Your task to perform on an android device: open chrome privacy settings Image 0: 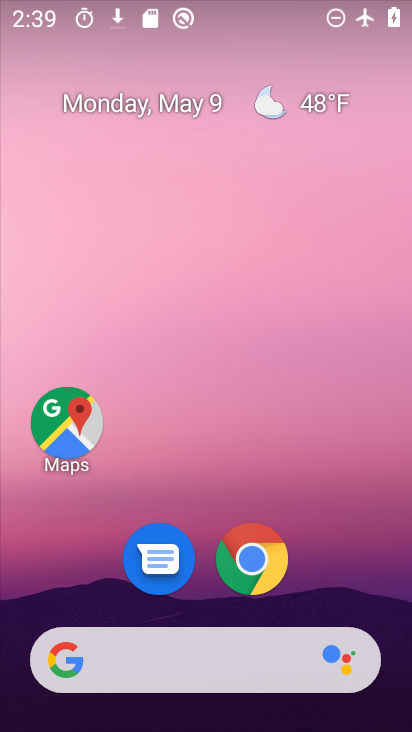
Step 0: drag from (196, 609) to (306, 139)
Your task to perform on an android device: open chrome privacy settings Image 1: 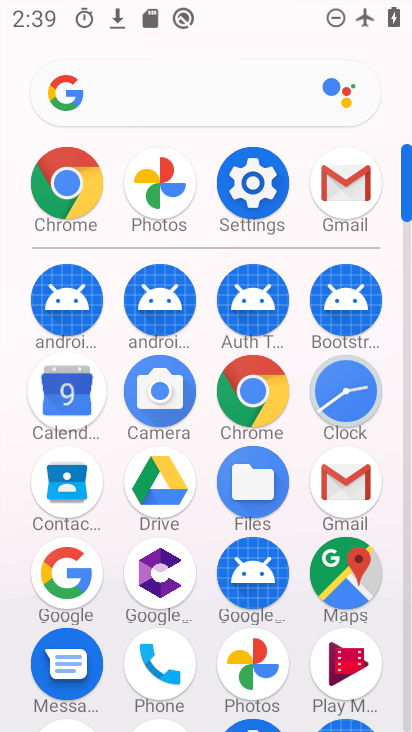
Step 1: click (258, 189)
Your task to perform on an android device: open chrome privacy settings Image 2: 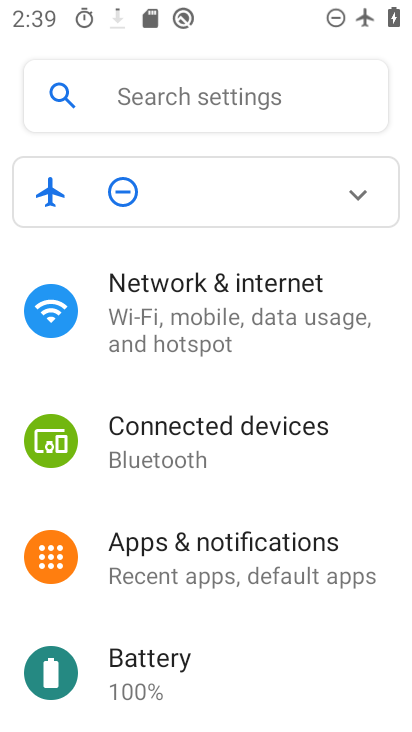
Step 2: drag from (212, 569) to (368, 70)
Your task to perform on an android device: open chrome privacy settings Image 3: 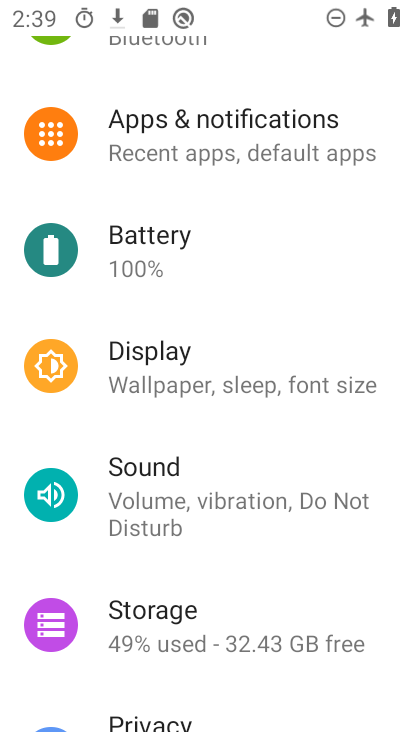
Step 3: drag from (253, 634) to (306, 185)
Your task to perform on an android device: open chrome privacy settings Image 4: 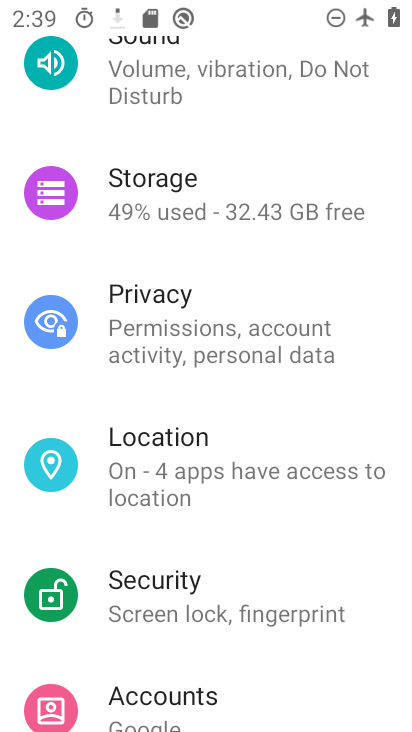
Step 4: drag from (184, 605) to (239, 266)
Your task to perform on an android device: open chrome privacy settings Image 5: 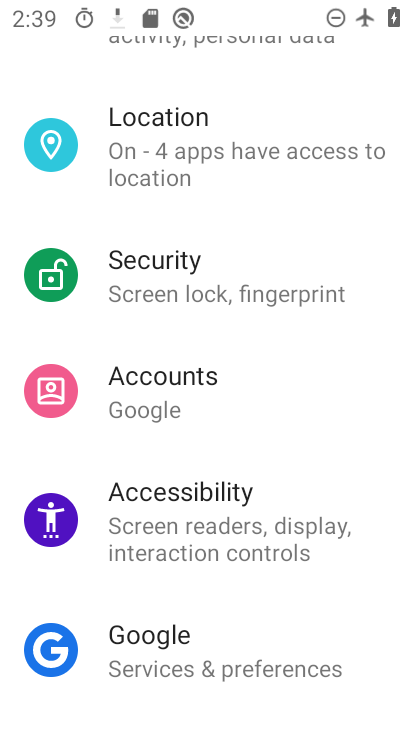
Step 5: press back button
Your task to perform on an android device: open chrome privacy settings Image 6: 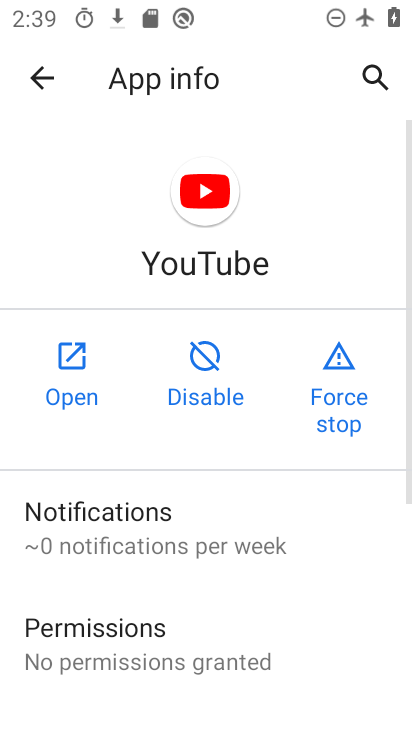
Step 6: press back button
Your task to perform on an android device: open chrome privacy settings Image 7: 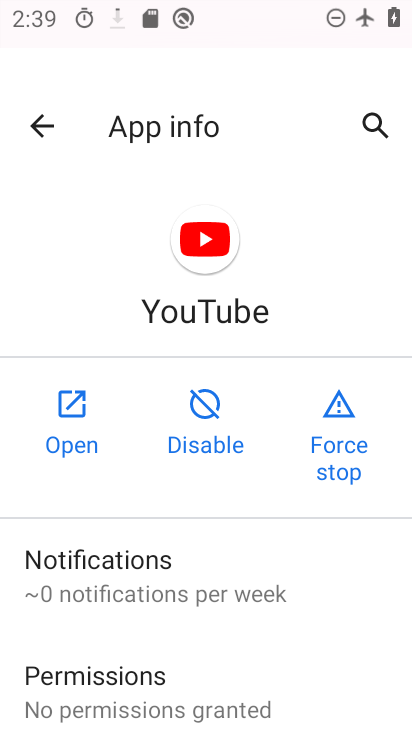
Step 7: press back button
Your task to perform on an android device: open chrome privacy settings Image 8: 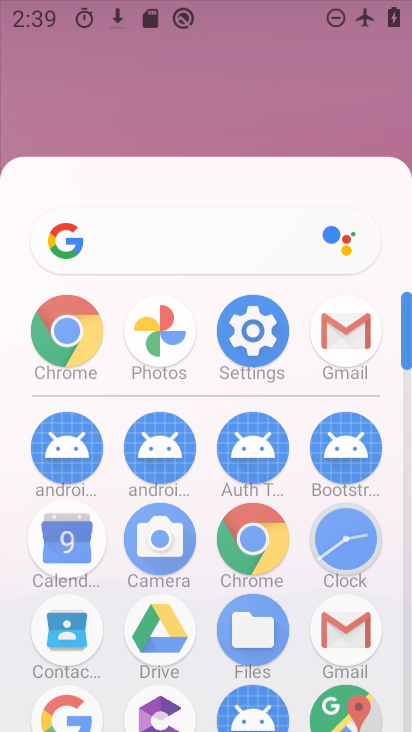
Step 8: press back button
Your task to perform on an android device: open chrome privacy settings Image 9: 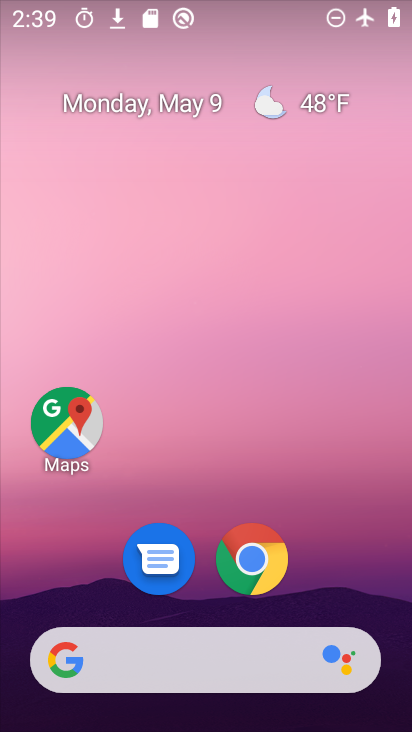
Step 9: click (248, 562)
Your task to perform on an android device: open chrome privacy settings Image 10: 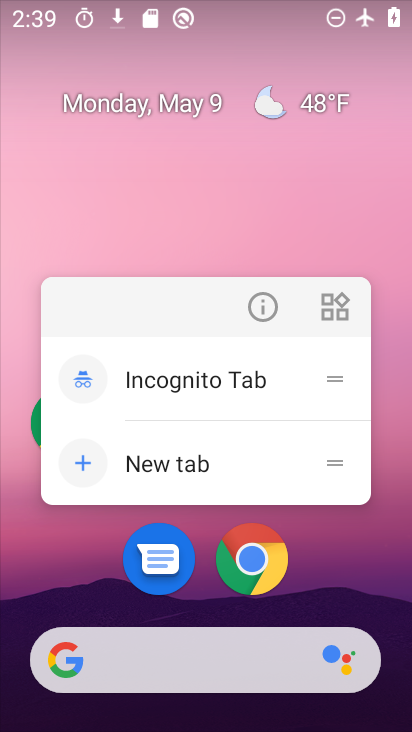
Step 10: click (270, 302)
Your task to perform on an android device: open chrome privacy settings Image 11: 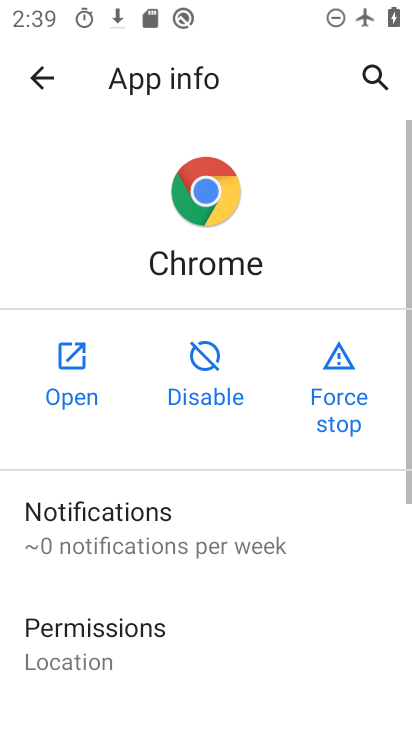
Step 11: click (70, 354)
Your task to perform on an android device: open chrome privacy settings Image 12: 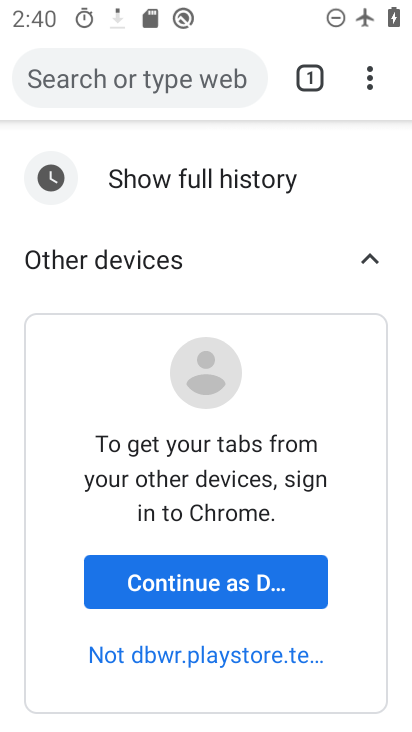
Step 12: drag from (367, 89) to (181, 641)
Your task to perform on an android device: open chrome privacy settings Image 13: 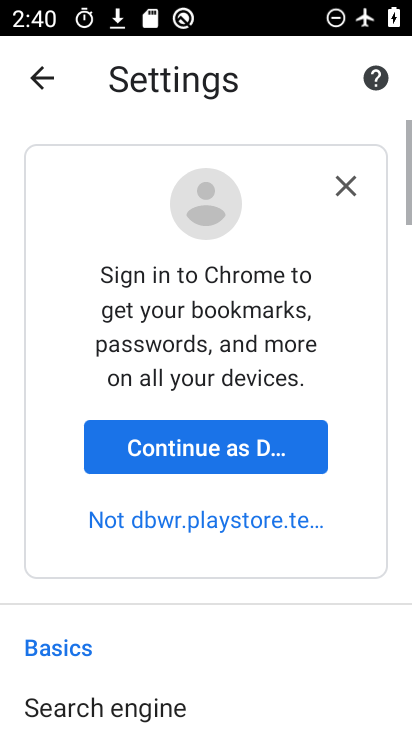
Step 13: drag from (232, 615) to (329, 127)
Your task to perform on an android device: open chrome privacy settings Image 14: 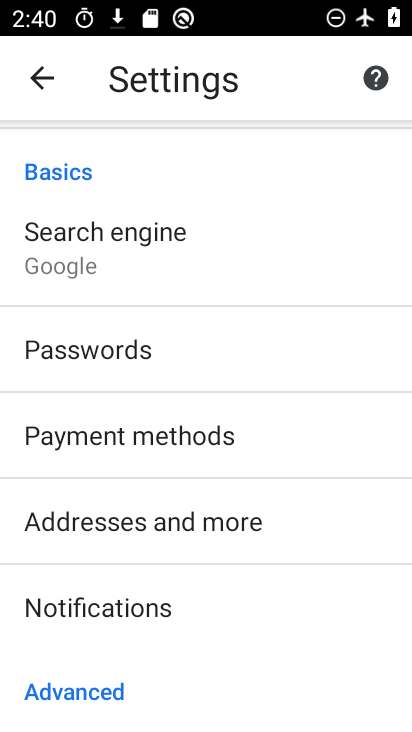
Step 14: drag from (205, 602) to (225, 230)
Your task to perform on an android device: open chrome privacy settings Image 15: 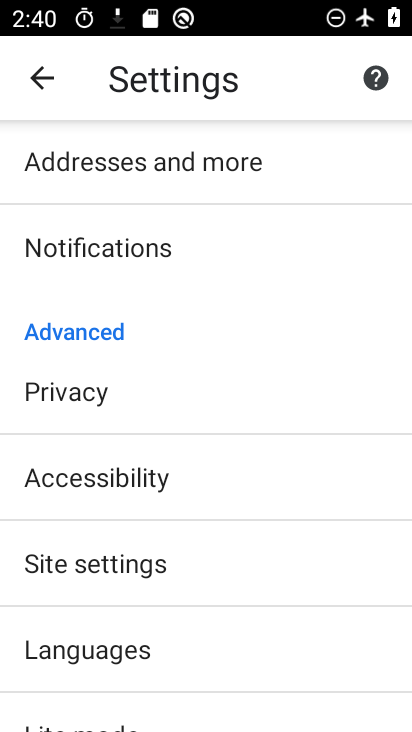
Step 15: click (124, 410)
Your task to perform on an android device: open chrome privacy settings Image 16: 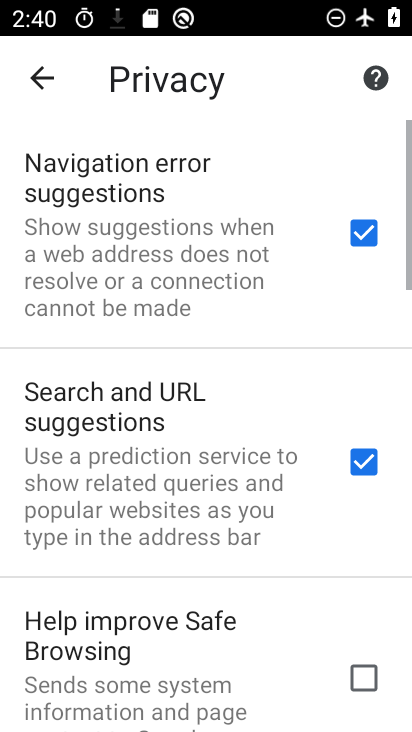
Step 16: task complete